Your task to perform on an android device: turn on airplane mode Image 0: 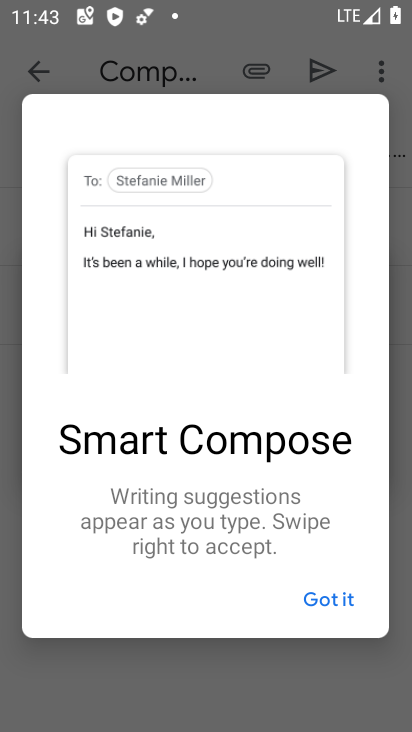
Step 0: press home button
Your task to perform on an android device: turn on airplane mode Image 1: 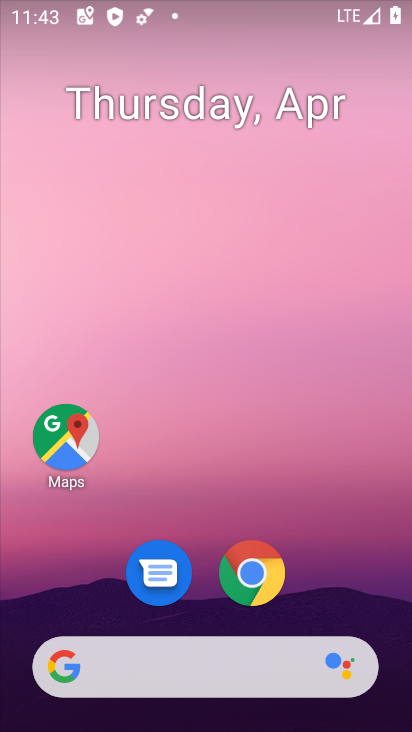
Step 1: drag from (321, 580) to (317, 65)
Your task to perform on an android device: turn on airplane mode Image 2: 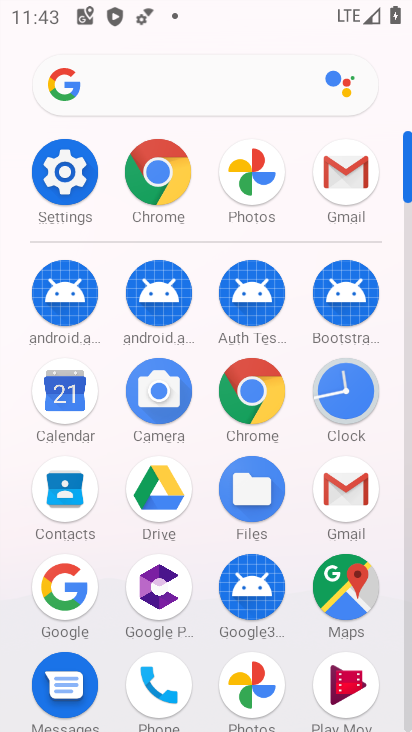
Step 2: click (61, 183)
Your task to perform on an android device: turn on airplane mode Image 3: 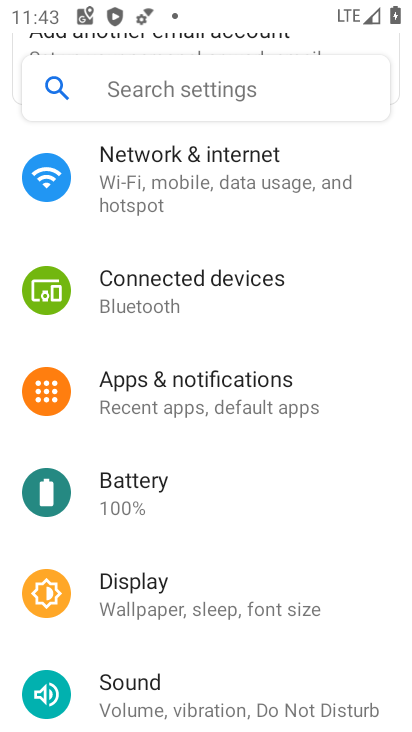
Step 3: click (209, 183)
Your task to perform on an android device: turn on airplane mode Image 4: 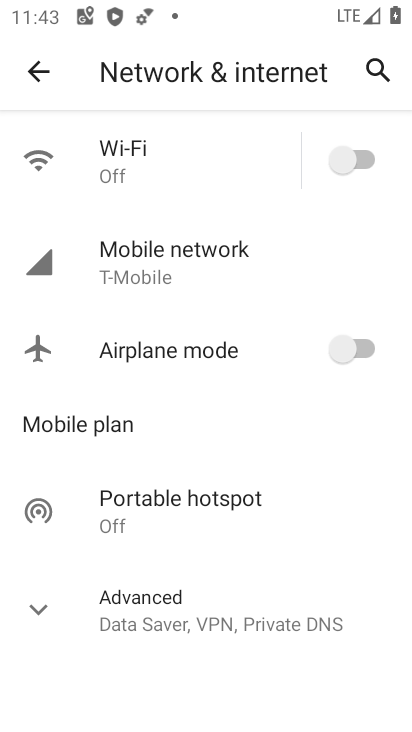
Step 4: click (366, 344)
Your task to perform on an android device: turn on airplane mode Image 5: 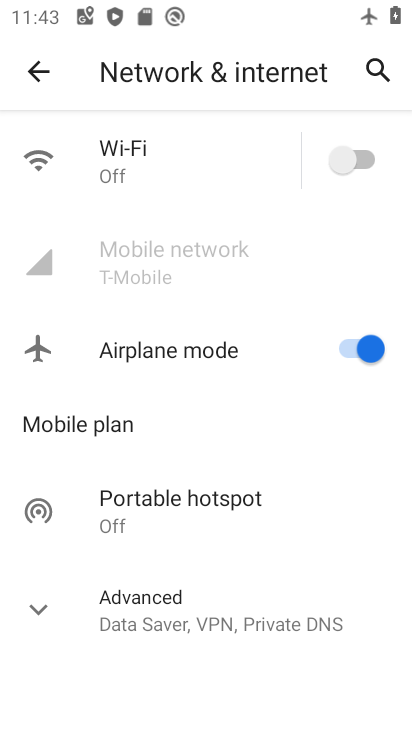
Step 5: task complete